Your task to perform on an android device: Open Maps and search for coffee Image 0: 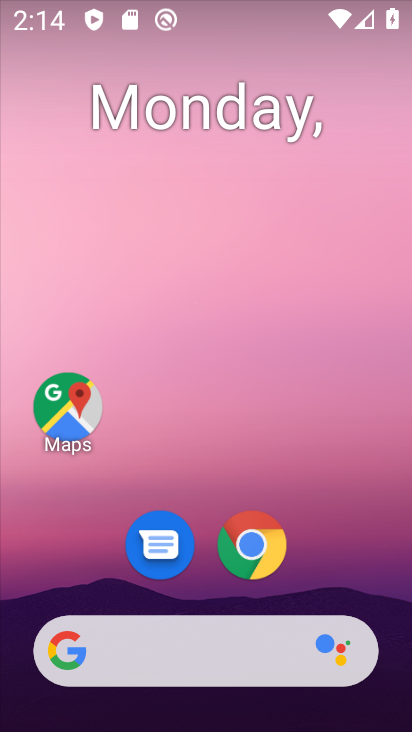
Step 0: click (71, 419)
Your task to perform on an android device: Open Maps and search for coffee Image 1: 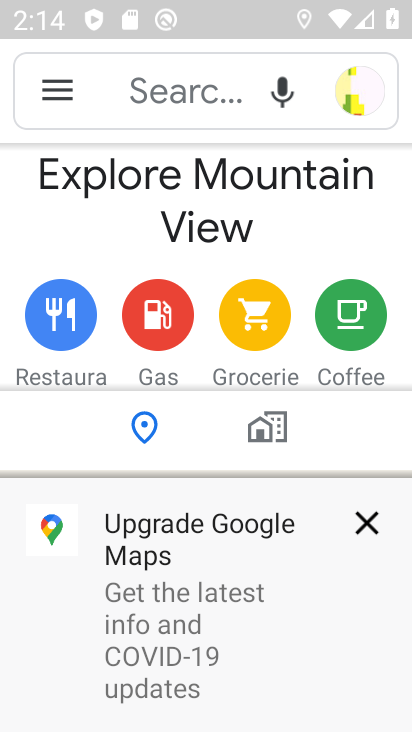
Step 1: click (178, 99)
Your task to perform on an android device: Open Maps and search for coffee Image 2: 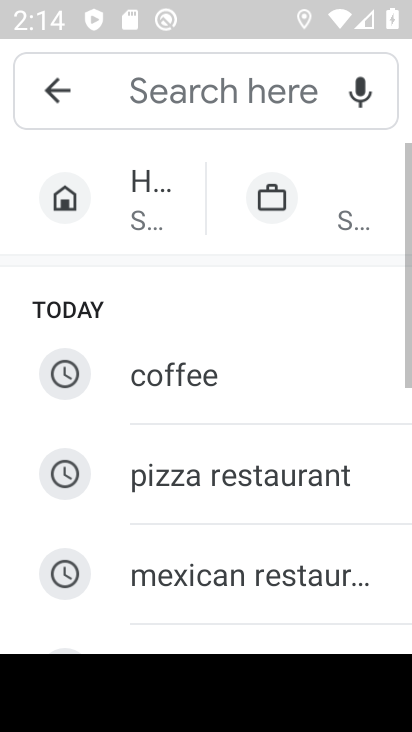
Step 2: click (194, 365)
Your task to perform on an android device: Open Maps and search for coffee Image 3: 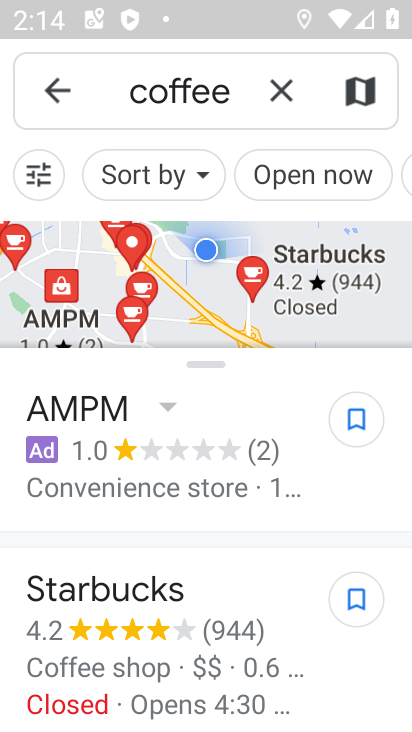
Step 3: task complete